Your task to perform on an android device: Open battery settings Image 0: 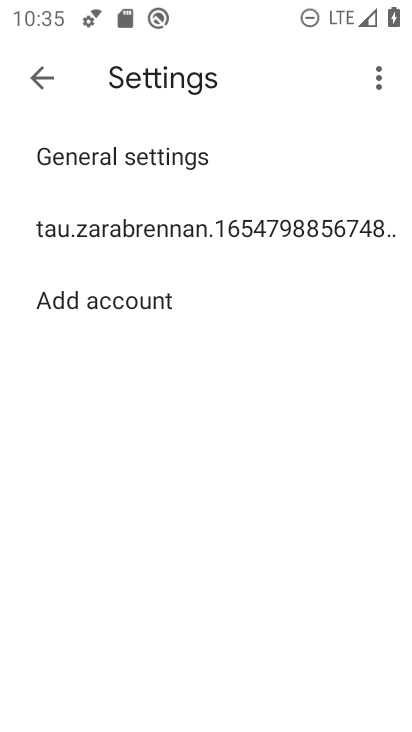
Step 0: press home button
Your task to perform on an android device: Open battery settings Image 1: 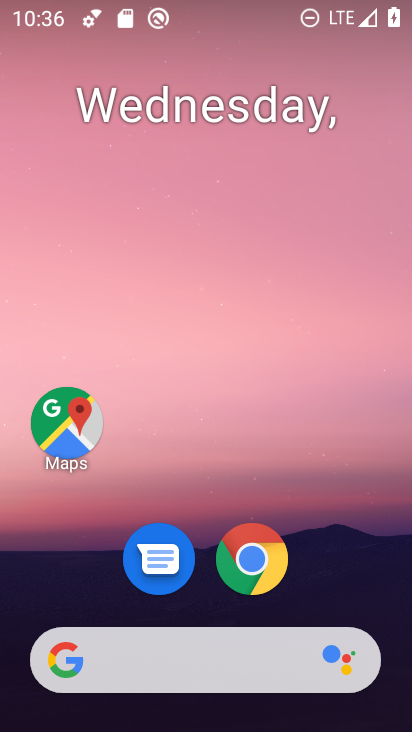
Step 1: drag from (362, 558) to (359, 139)
Your task to perform on an android device: Open battery settings Image 2: 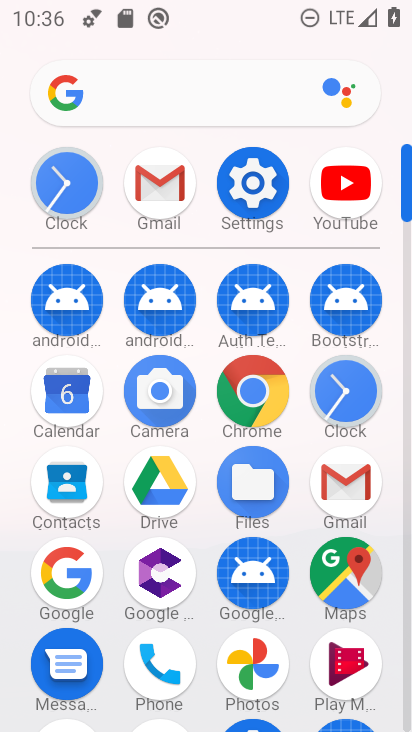
Step 2: click (260, 205)
Your task to perform on an android device: Open battery settings Image 3: 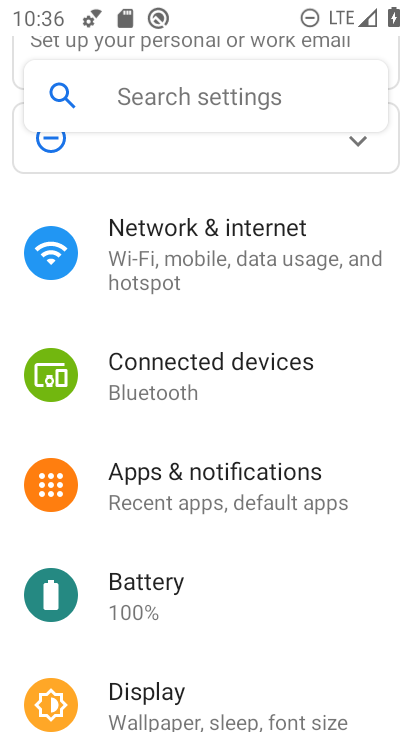
Step 3: drag from (364, 423) to (361, 321)
Your task to perform on an android device: Open battery settings Image 4: 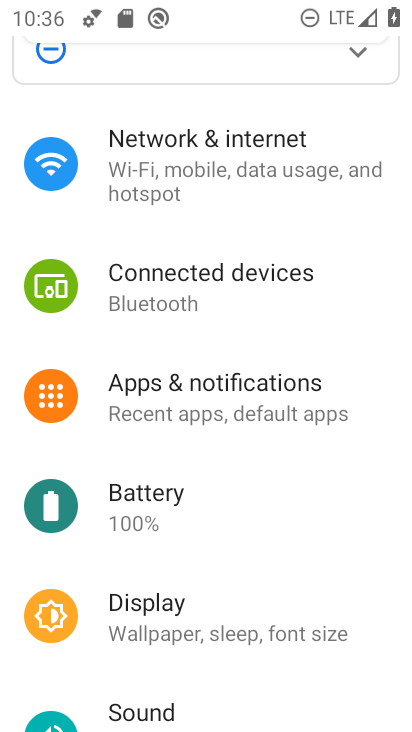
Step 4: drag from (361, 466) to (361, 347)
Your task to perform on an android device: Open battery settings Image 5: 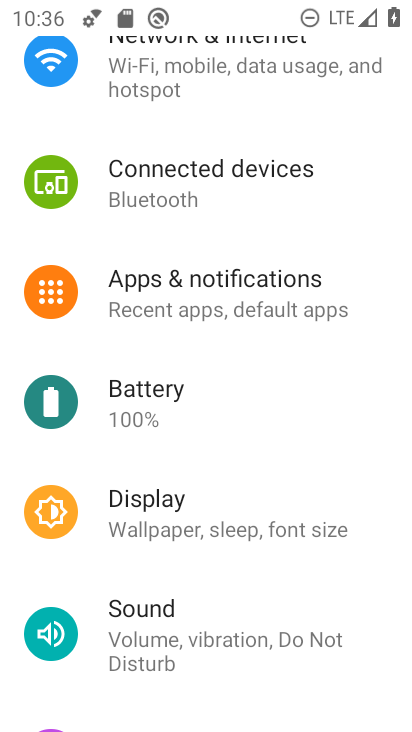
Step 5: drag from (370, 480) to (364, 366)
Your task to perform on an android device: Open battery settings Image 6: 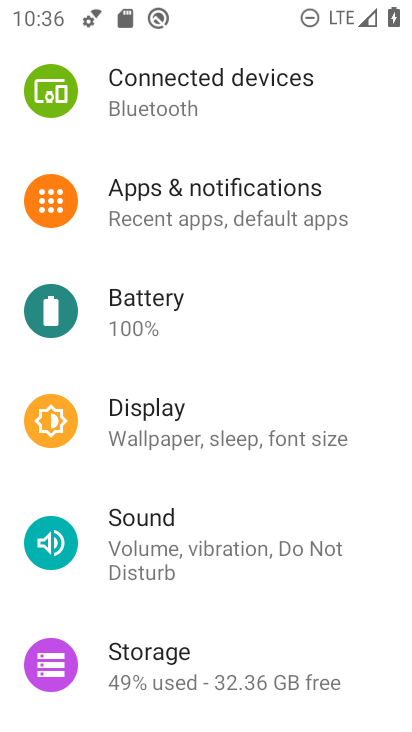
Step 6: drag from (373, 505) to (374, 402)
Your task to perform on an android device: Open battery settings Image 7: 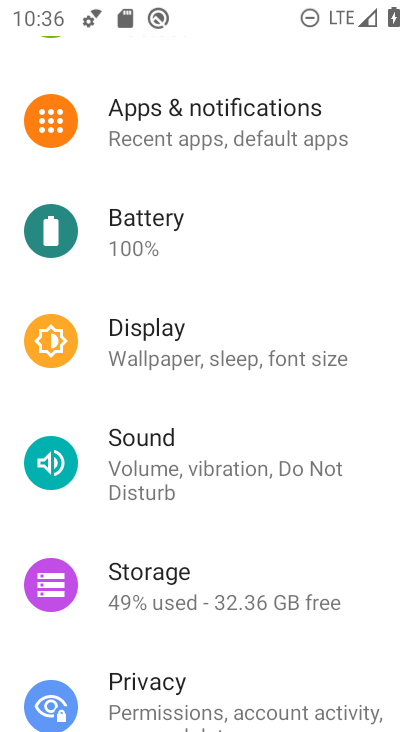
Step 7: drag from (365, 490) to (374, 330)
Your task to perform on an android device: Open battery settings Image 8: 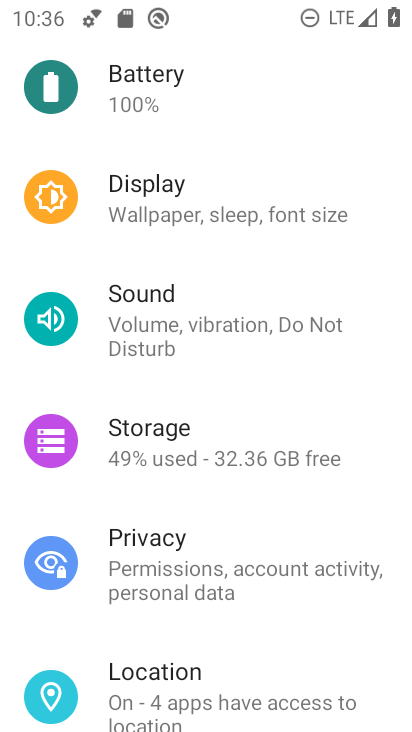
Step 8: drag from (355, 618) to (354, 464)
Your task to perform on an android device: Open battery settings Image 9: 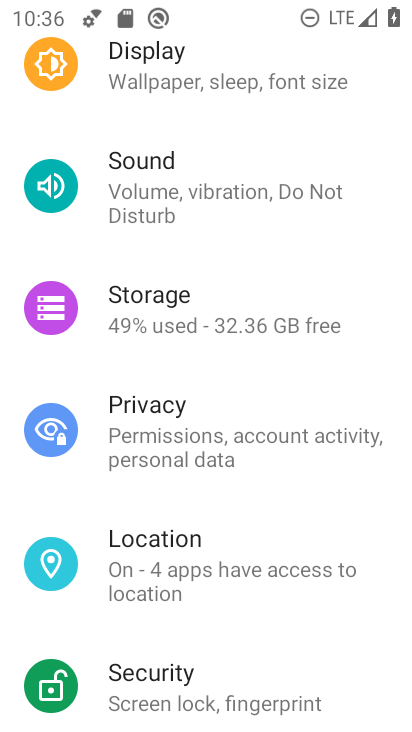
Step 9: drag from (366, 597) to (354, 432)
Your task to perform on an android device: Open battery settings Image 10: 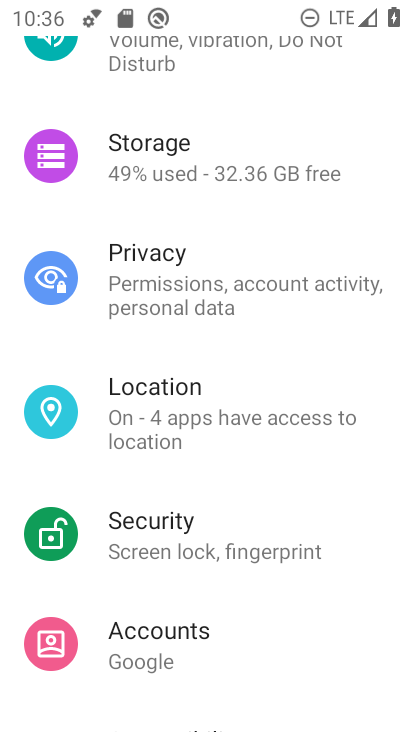
Step 10: drag from (346, 576) to (350, 431)
Your task to perform on an android device: Open battery settings Image 11: 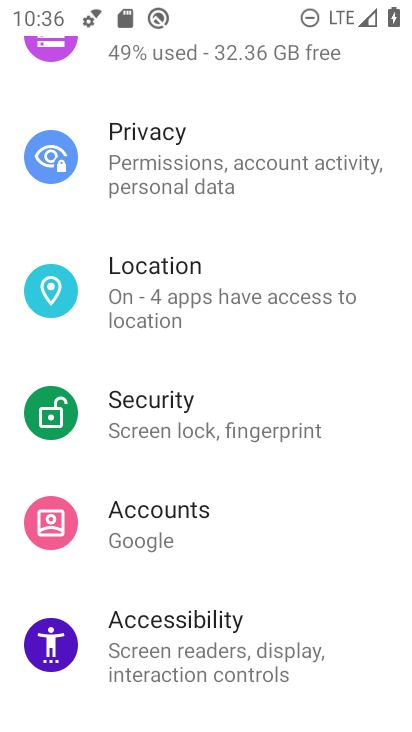
Step 11: drag from (357, 580) to (358, 427)
Your task to perform on an android device: Open battery settings Image 12: 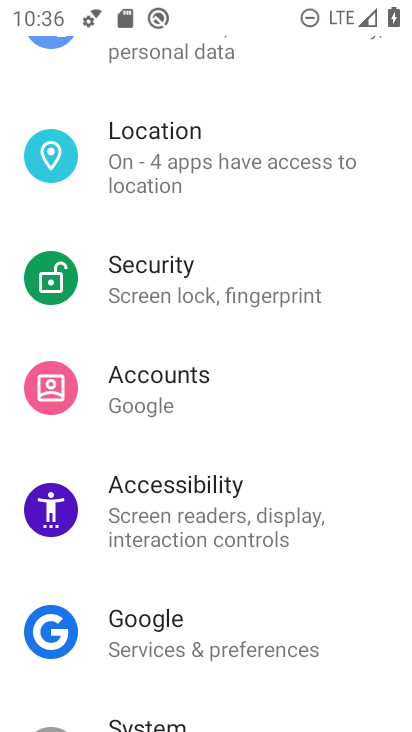
Step 12: drag from (361, 353) to (364, 470)
Your task to perform on an android device: Open battery settings Image 13: 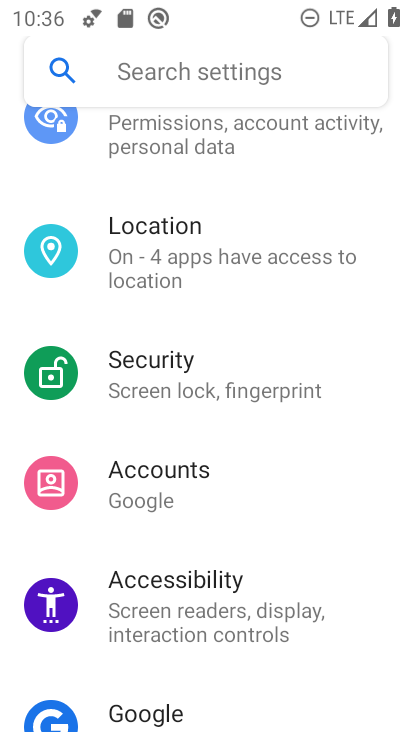
Step 13: drag from (358, 309) to (360, 426)
Your task to perform on an android device: Open battery settings Image 14: 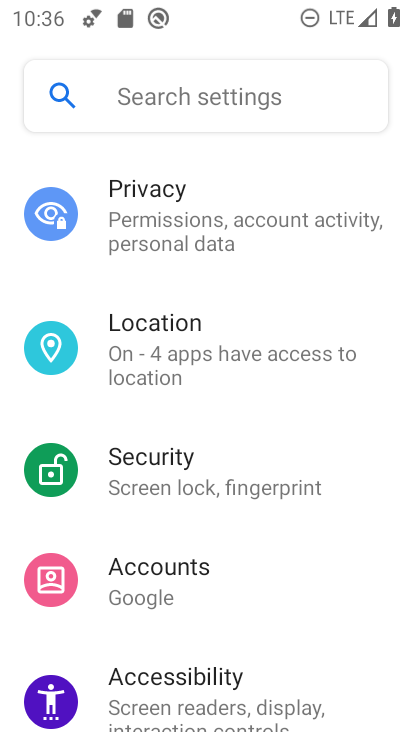
Step 14: drag from (361, 286) to (370, 376)
Your task to perform on an android device: Open battery settings Image 15: 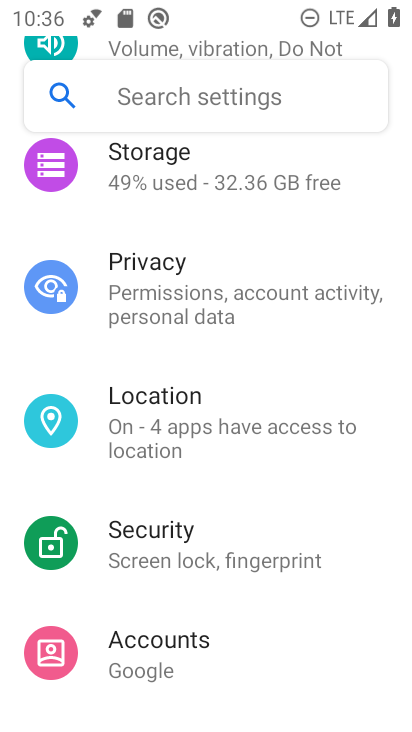
Step 15: drag from (378, 231) to (388, 319)
Your task to perform on an android device: Open battery settings Image 16: 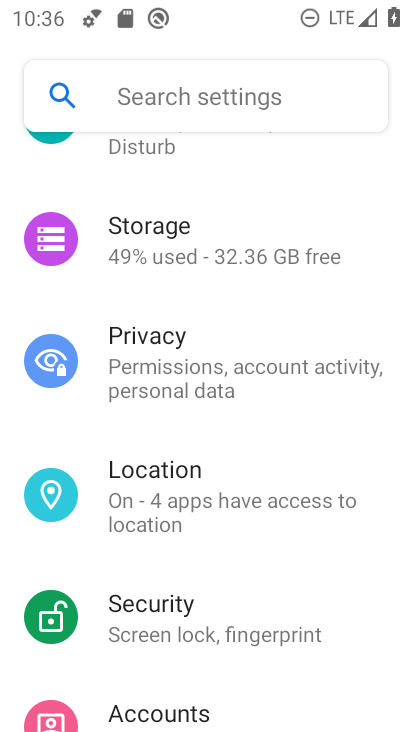
Step 16: drag from (378, 230) to (383, 317)
Your task to perform on an android device: Open battery settings Image 17: 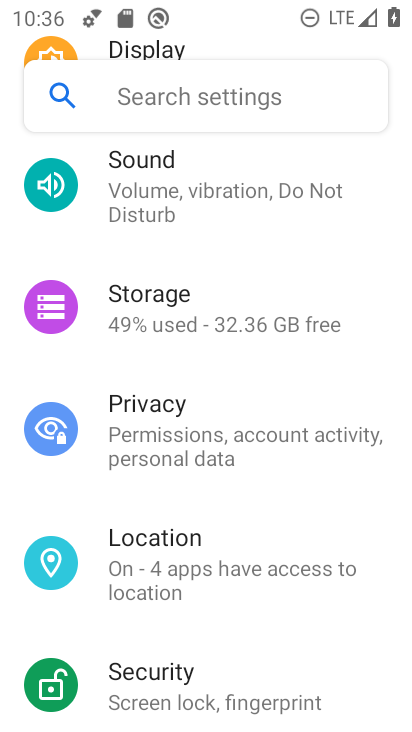
Step 17: drag from (377, 221) to (376, 307)
Your task to perform on an android device: Open battery settings Image 18: 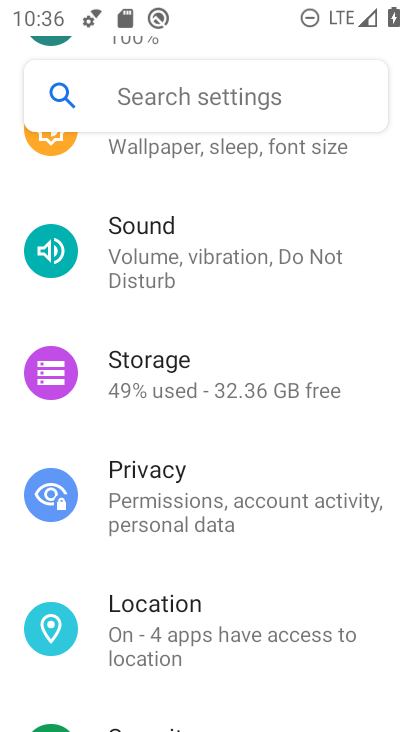
Step 18: drag from (377, 206) to (381, 298)
Your task to perform on an android device: Open battery settings Image 19: 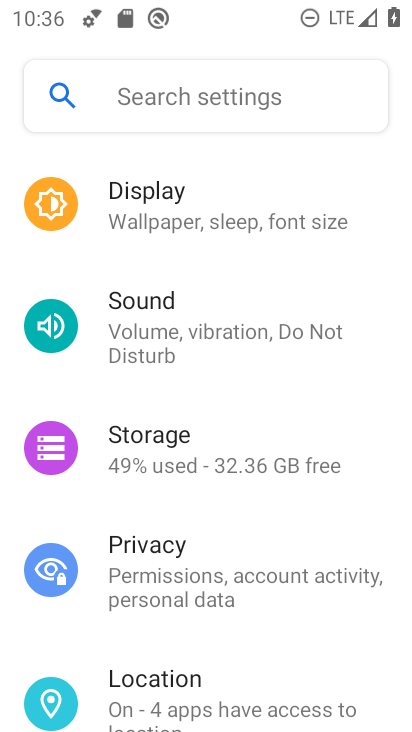
Step 19: drag from (371, 179) to (371, 308)
Your task to perform on an android device: Open battery settings Image 20: 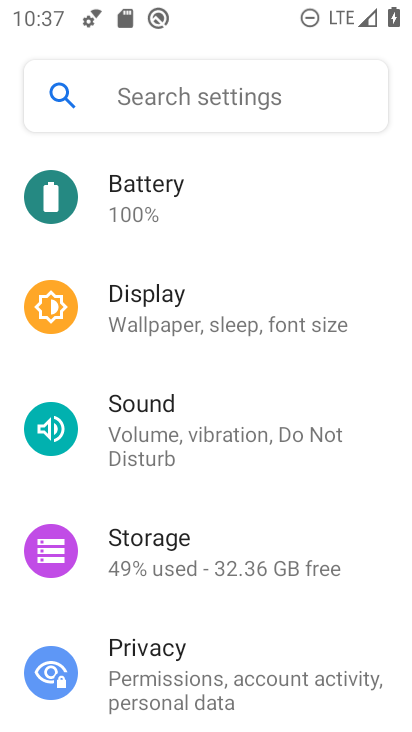
Step 20: drag from (364, 200) to (378, 305)
Your task to perform on an android device: Open battery settings Image 21: 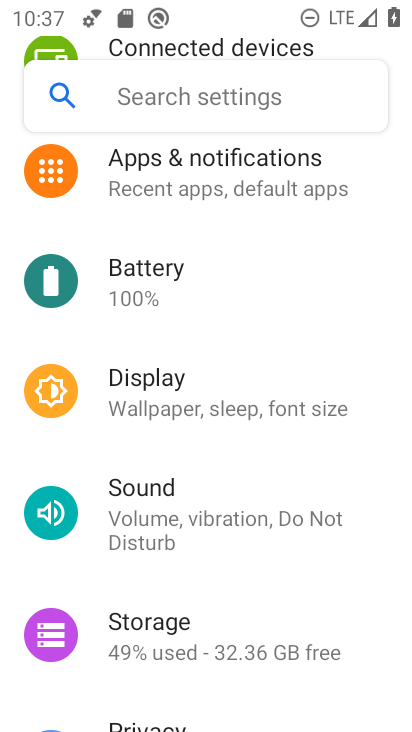
Step 21: click (297, 308)
Your task to perform on an android device: Open battery settings Image 22: 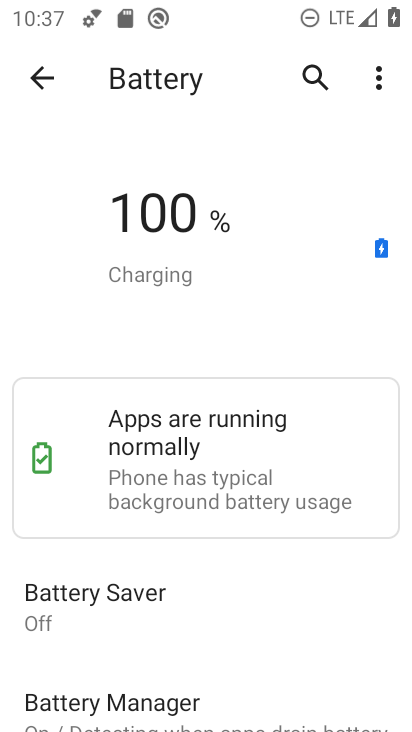
Step 22: task complete